Your task to perform on an android device: turn off airplane mode Image 0: 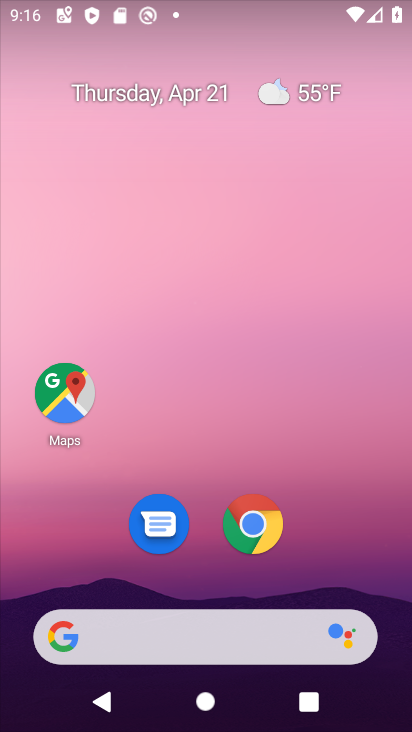
Step 0: drag from (342, 556) to (287, 62)
Your task to perform on an android device: turn off airplane mode Image 1: 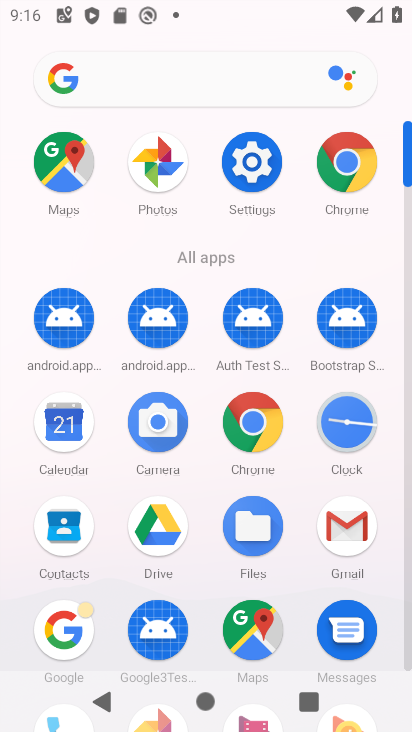
Step 1: click (251, 158)
Your task to perform on an android device: turn off airplane mode Image 2: 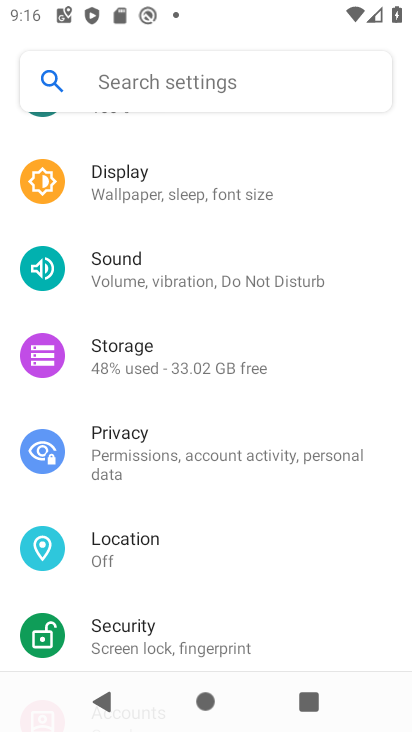
Step 2: drag from (259, 327) to (302, 674)
Your task to perform on an android device: turn off airplane mode Image 3: 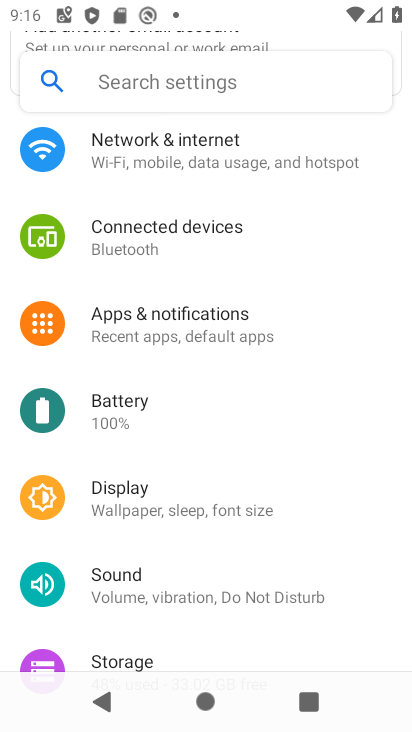
Step 3: click (262, 147)
Your task to perform on an android device: turn off airplane mode Image 4: 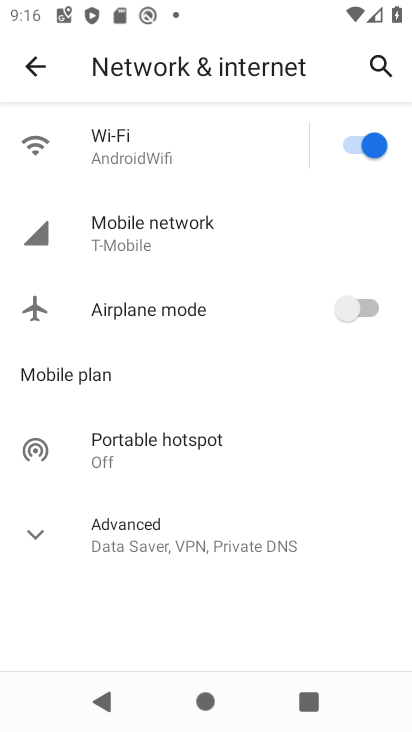
Step 4: task complete